Your task to perform on an android device: set the stopwatch Image 0: 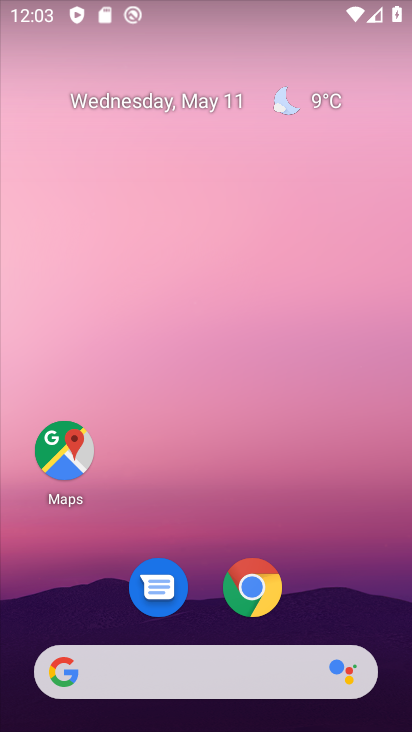
Step 0: drag from (355, 657) to (133, 265)
Your task to perform on an android device: set the stopwatch Image 1: 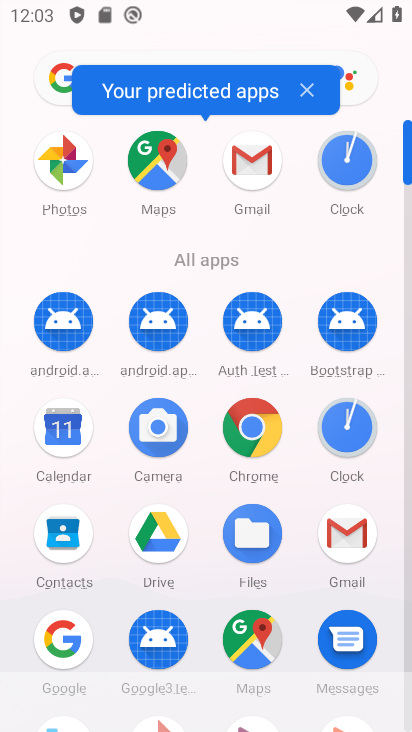
Step 1: click (344, 147)
Your task to perform on an android device: set the stopwatch Image 2: 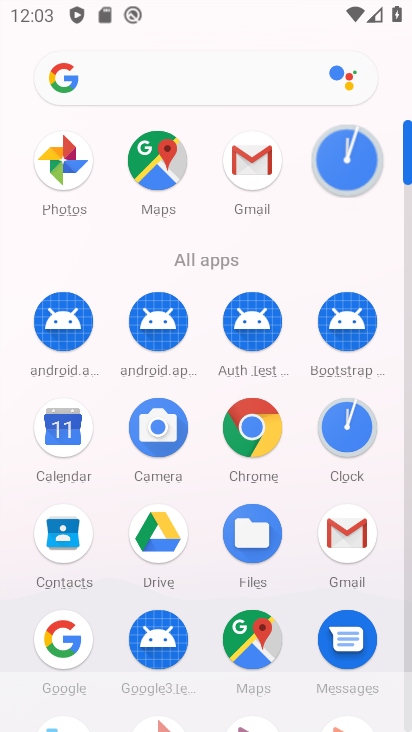
Step 2: click (345, 151)
Your task to perform on an android device: set the stopwatch Image 3: 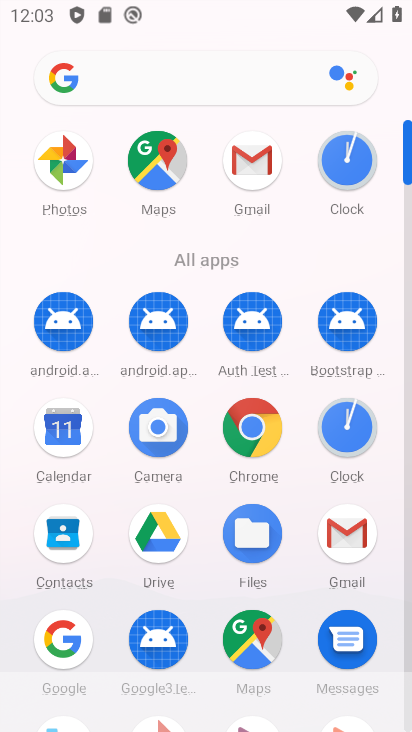
Step 3: click (345, 157)
Your task to perform on an android device: set the stopwatch Image 4: 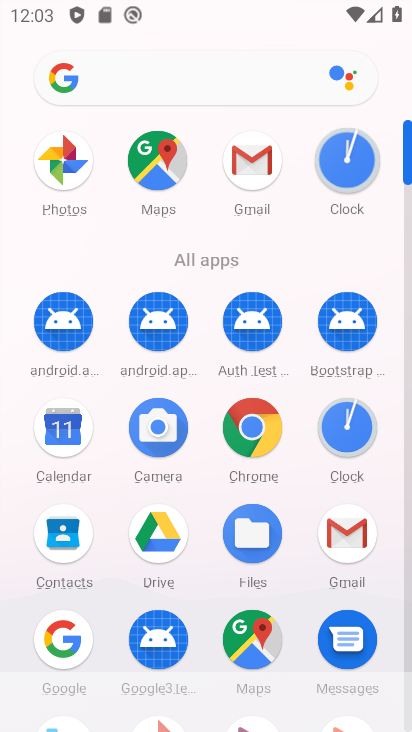
Step 4: click (345, 157)
Your task to perform on an android device: set the stopwatch Image 5: 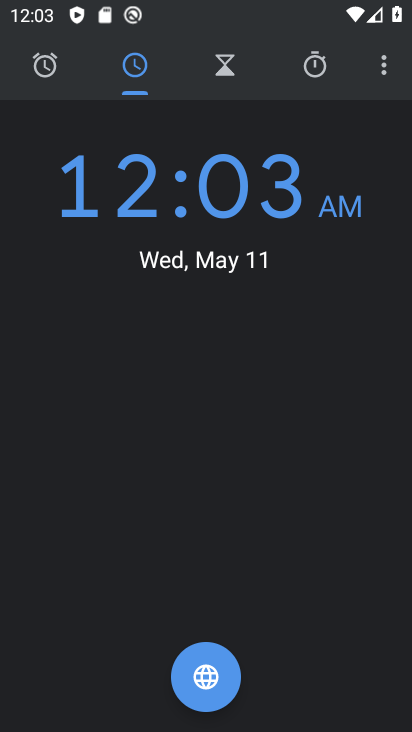
Step 5: click (320, 66)
Your task to perform on an android device: set the stopwatch Image 6: 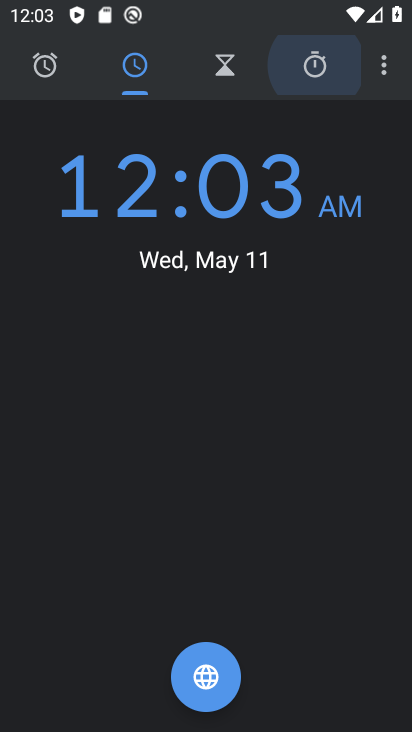
Step 6: click (320, 66)
Your task to perform on an android device: set the stopwatch Image 7: 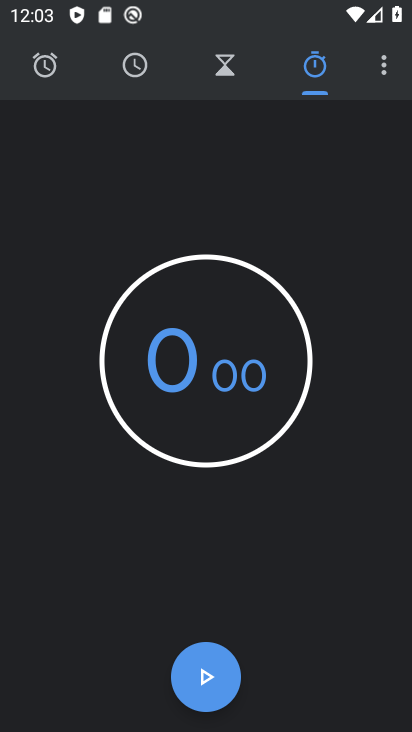
Step 7: click (199, 674)
Your task to perform on an android device: set the stopwatch Image 8: 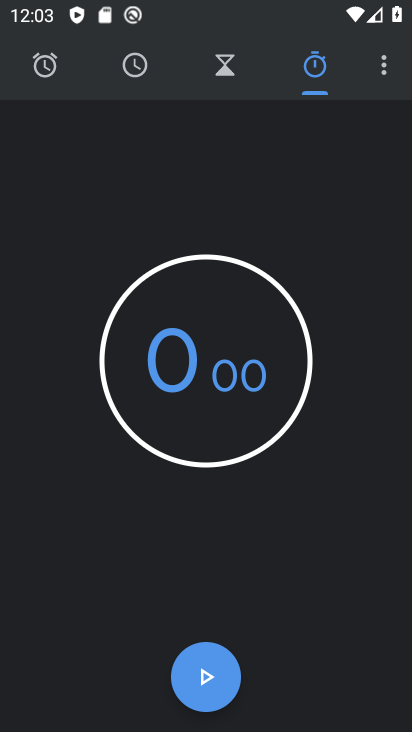
Step 8: click (199, 675)
Your task to perform on an android device: set the stopwatch Image 9: 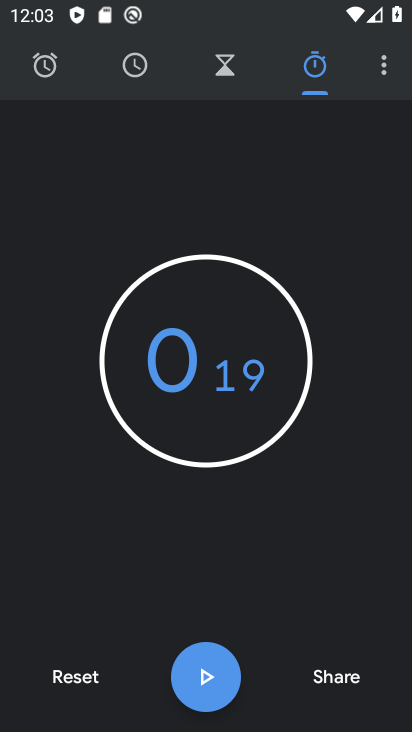
Step 9: click (205, 666)
Your task to perform on an android device: set the stopwatch Image 10: 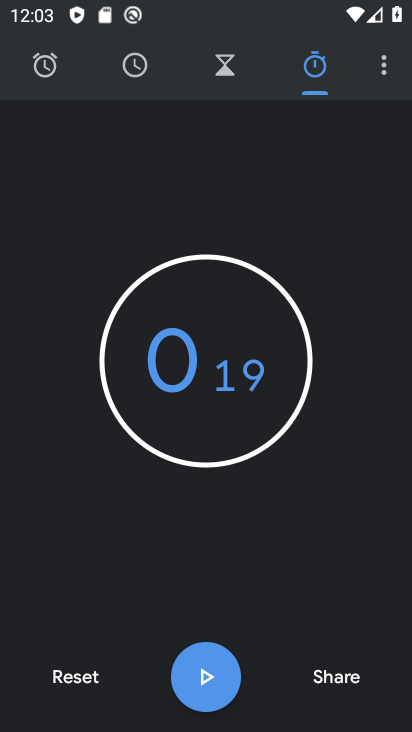
Step 10: click (192, 662)
Your task to perform on an android device: set the stopwatch Image 11: 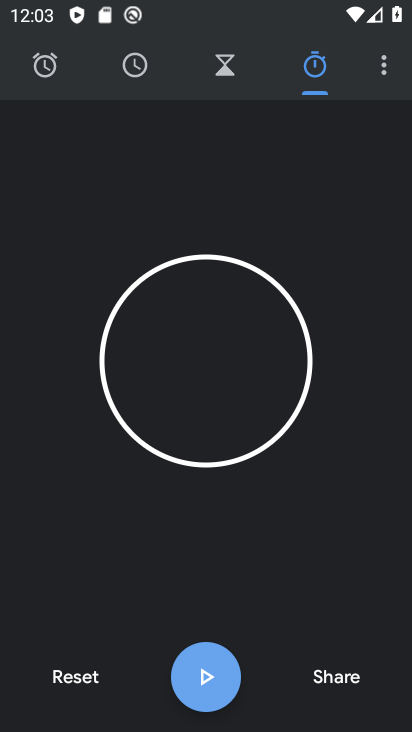
Step 11: click (207, 676)
Your task to perform on an android device: set the stopwatch Image 12: 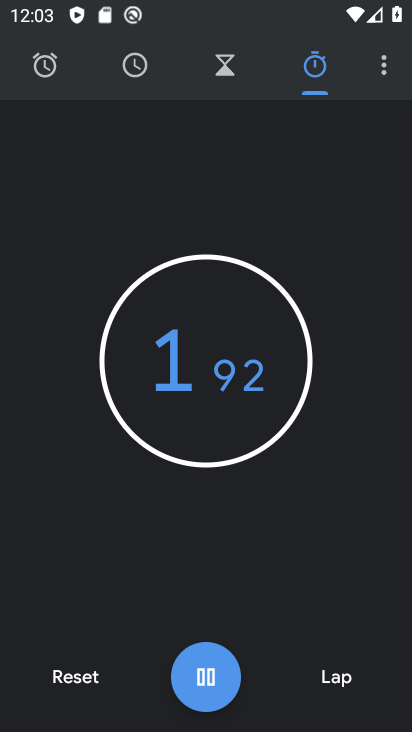
Step 12: click (208, 678)
Your task to perform on an android device: set the stopwatch Image 13: 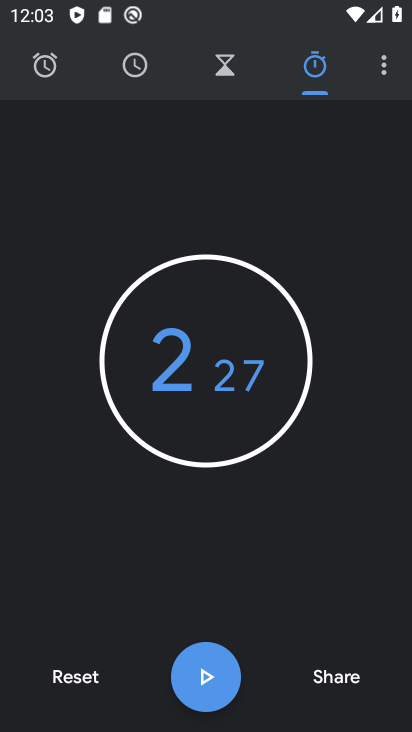
Step 13: task complete